Your task to perform on an android device: change timer sound Image 0: 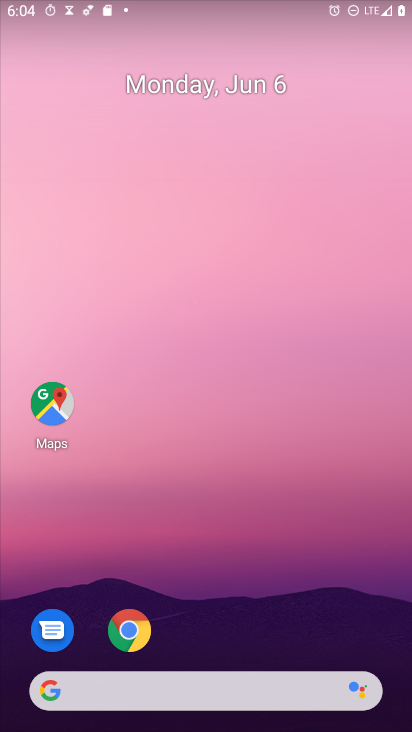
Step 0: drag from (271, 605) to (263, 3)
Your task to perform on an android device: change timer sound Image 1: 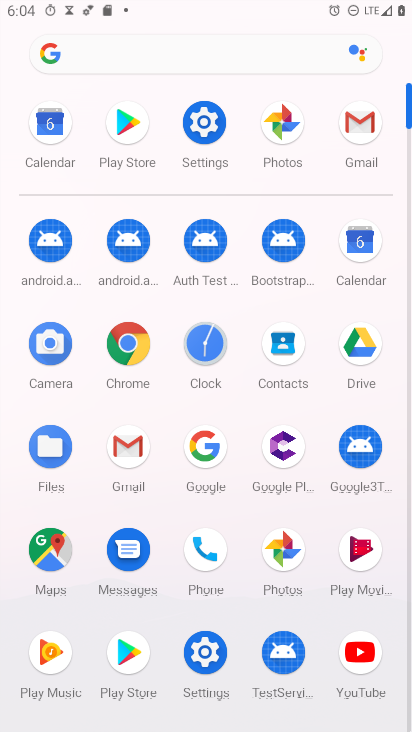
Step 1: click (209, 340)
Your task to perform on an android device: change timer sound Image 2: 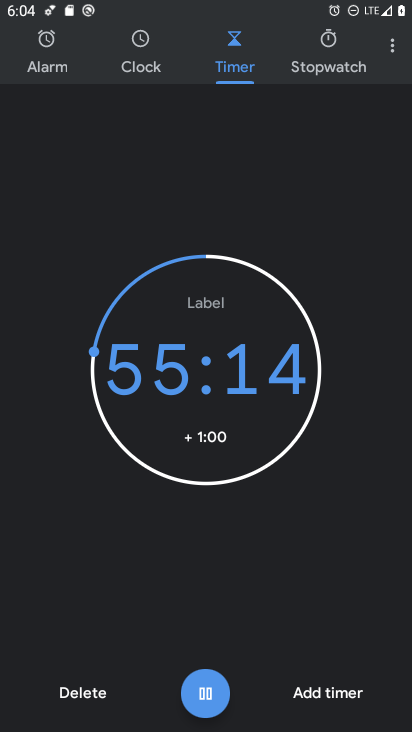
Step 2: click (391, 50)
Your task to perform on an android device: change timer sound Image 3: 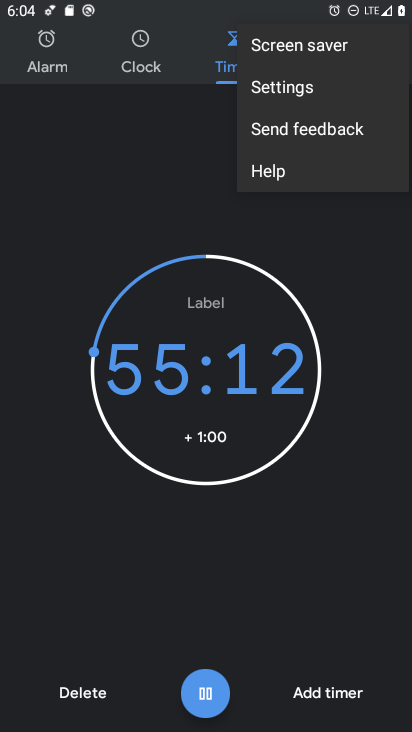
Step 3: click (299, 88)
Your task to perform on an android device: change timer sound Image 4: 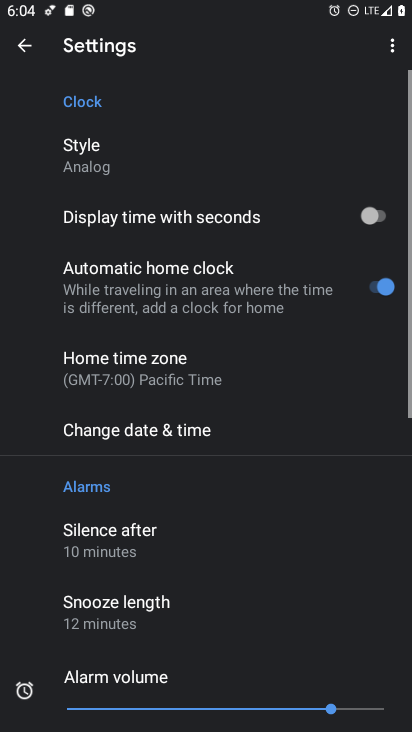
Step 4: drag from (160, 664) to (216, 154)
Your task to perform on an android device: change timer sound Image 5: 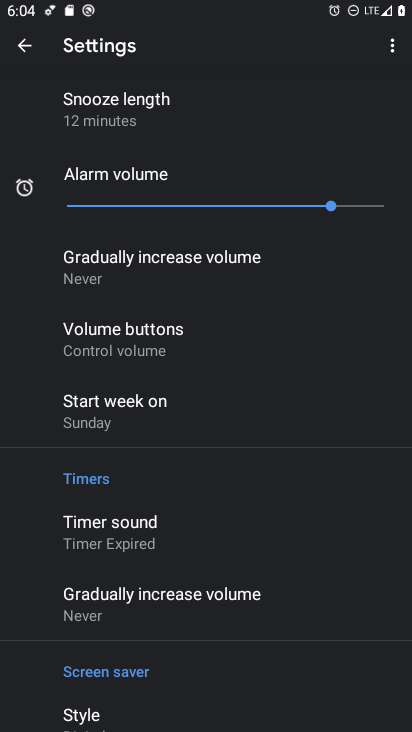
Step 5: click (176, 524)
Your task to perform on an android device: change timer sound Image 6: 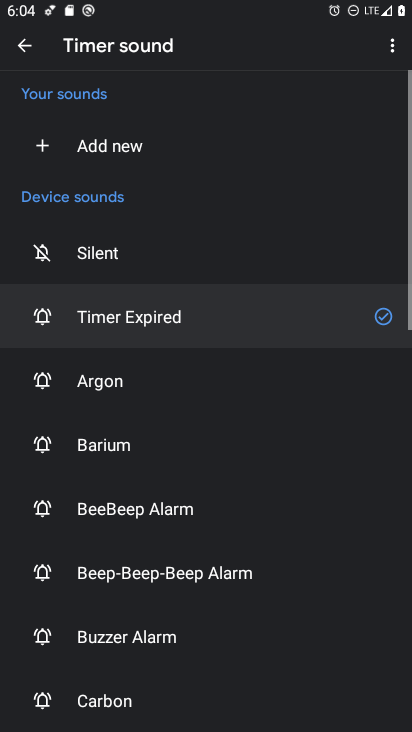
Step 6: click (241, 399)
Your task to perform on an android device: change timer sound Image 7: 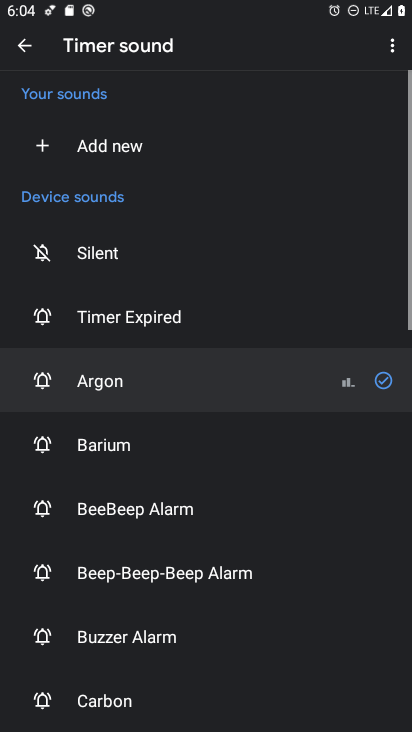
Step 7: task complete